Your task to perform on an android device: Open Wikipedia Image 0: 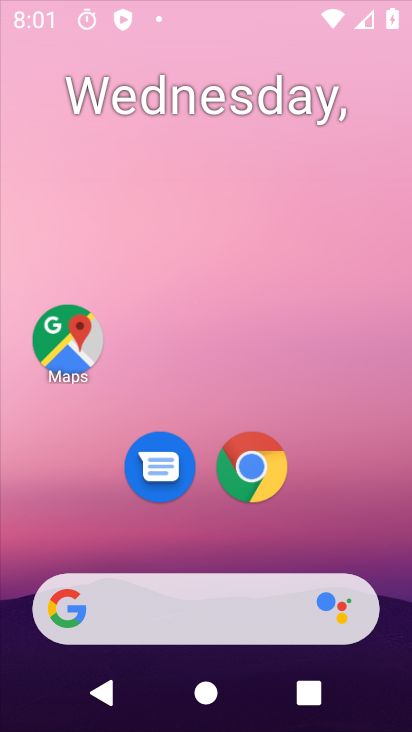
Step 0: click (379, 169)
Your task to perform on an android device: Open Wikipedia Image 1: 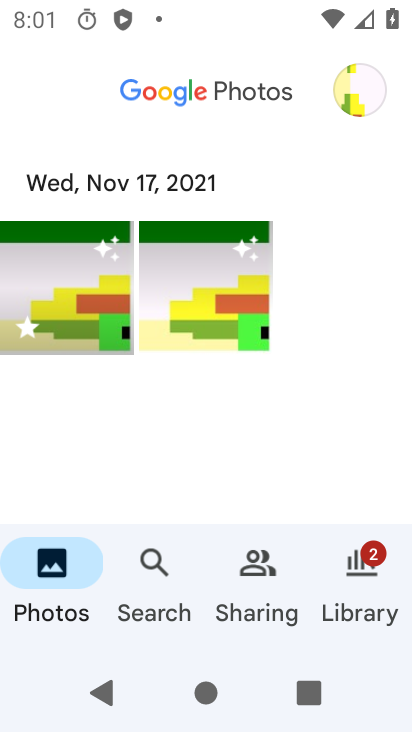
Step 1: press home button
Your task to perform on an android device: Open Wikipedia Image 2: 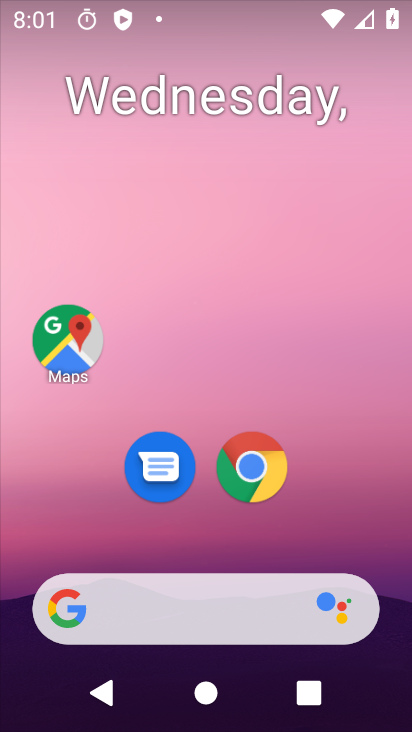
Step 2: click (240, 459)
Your task to perform on an android device: Open Wikipedia Image 3: 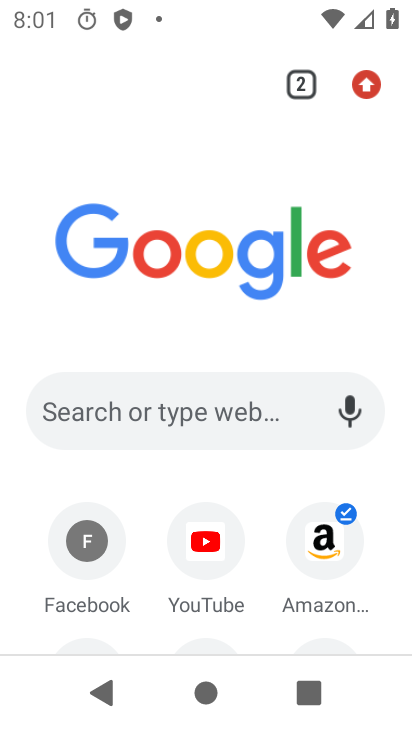
Step 3: click (223, 414)
Your task to perform on an android device: Open Wikipedia Image 4: 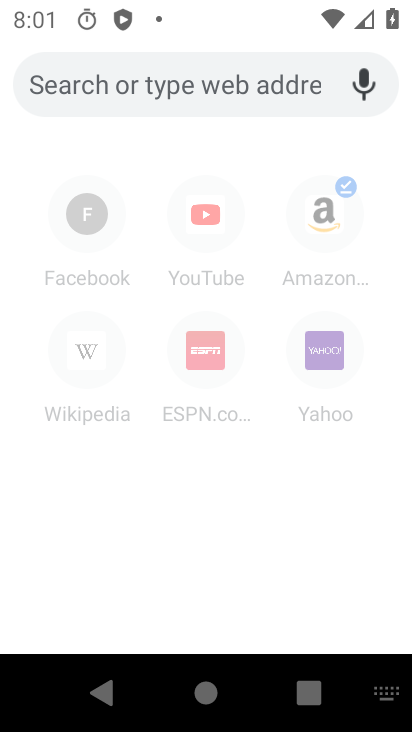
Step 4: type "Wikipedia"
Your task to perform on an android device: Open Wikipedia Image 5: 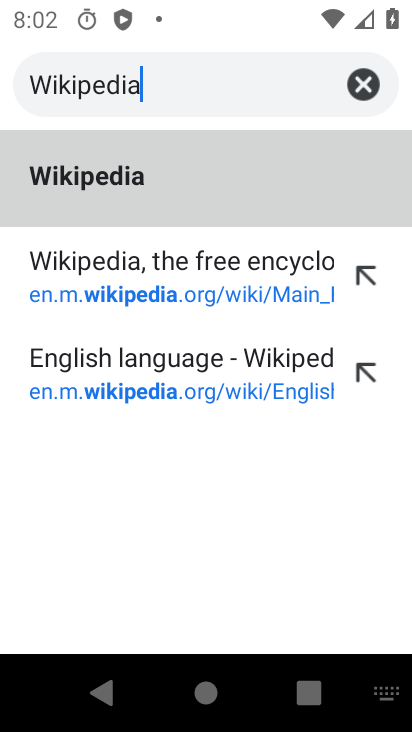
Step 5: click (99, 166)
Your task to perform on an android device: Open Wikipedia Image 6: 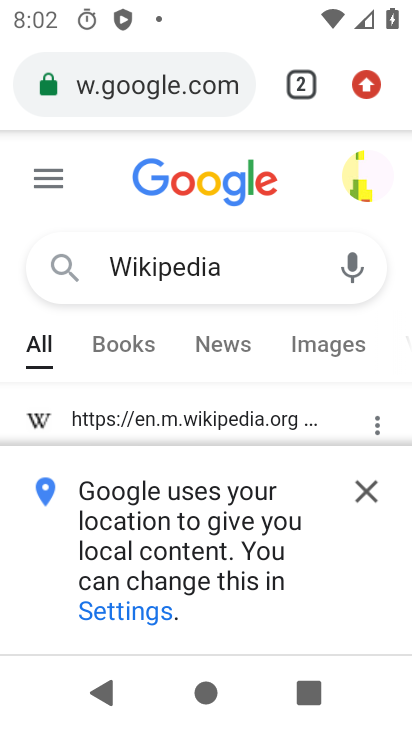
Step 6: task complete